Your task to perform on an android device: Go to Google maps Image 0: 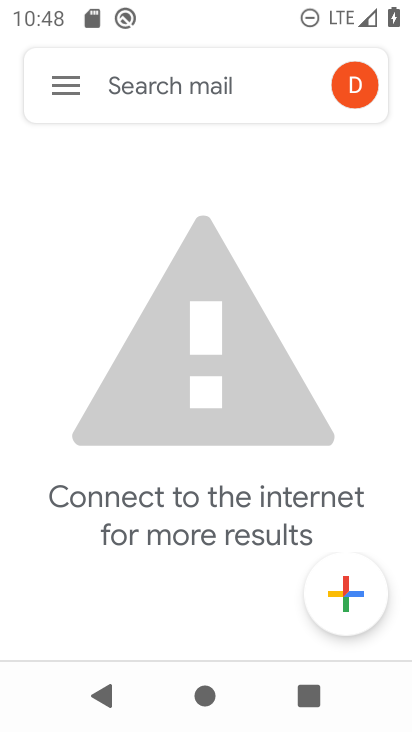
Step 0: press home button
Your task to perform on an android device: Go to Google maps Image 1: 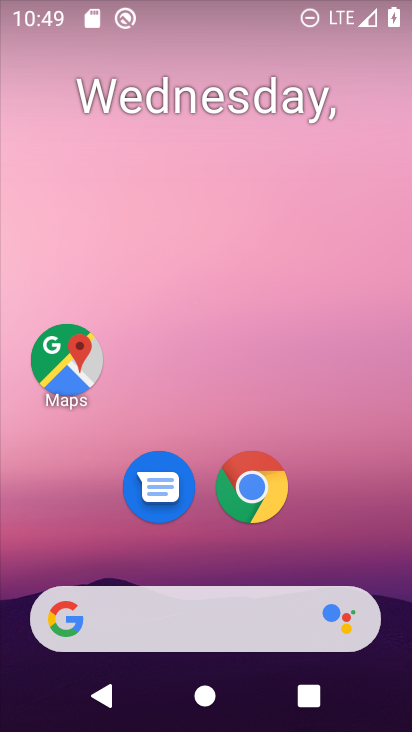
Step 1: click (65, 362)
Your task to perform on an android device: Go to Google maps Image 2: 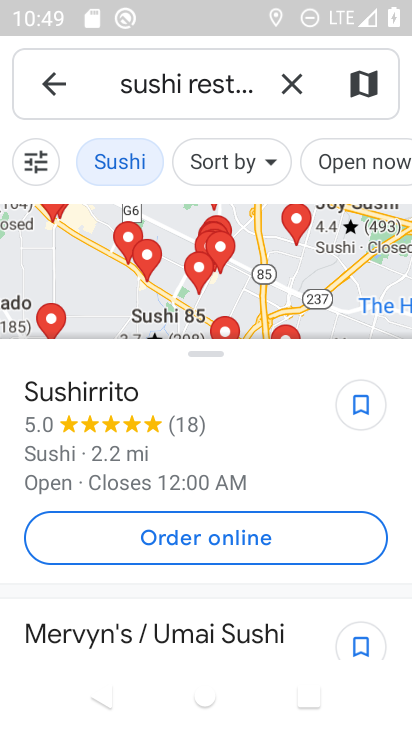
Step 2: click (41, 83)
Your task to perform on an android device: Go to Google maps Image 3: 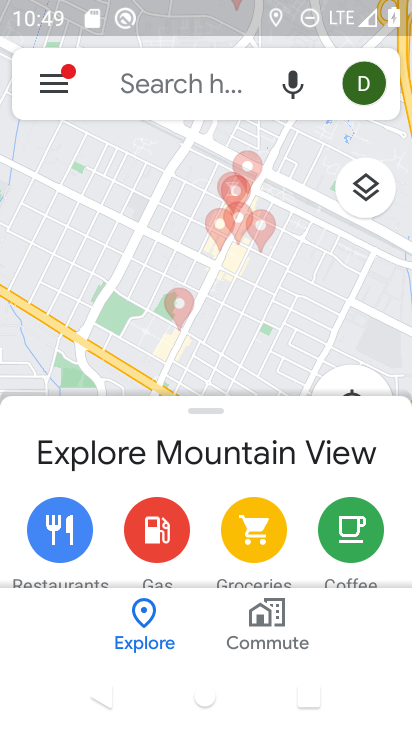
Step 3: task complete